Your task to perform on an android device: turn off notifications settings in the gmail app Image 0: 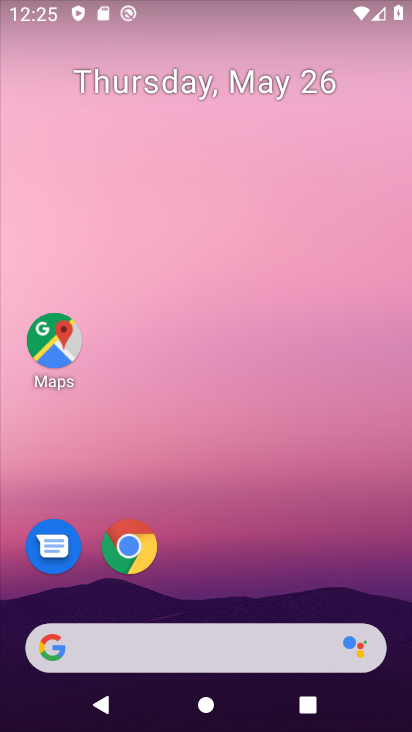
Step 0: drag from (391, 643) to (255, 33)
Your task to perform on an android device: turn off notifications settings in the gmail app Image 1: 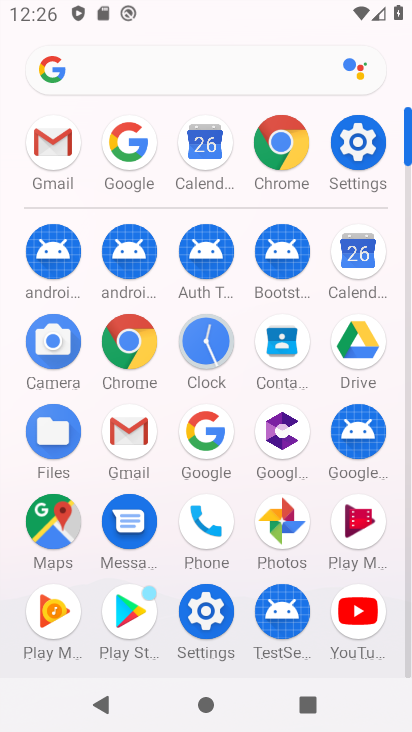
Step 1: click (130, 441)
Your task to perform on an android device: turn off notifications settings in the gmail app Image 2: 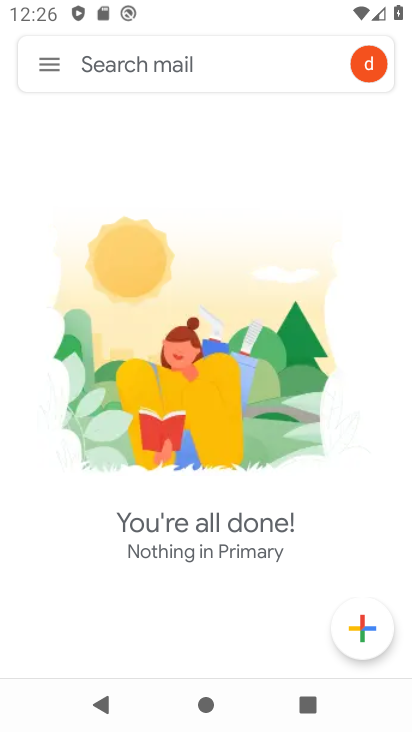
Step 2: click (52, 72)
Your task to perform on an android device: turn off notifications settings in the gmail app Image 3: 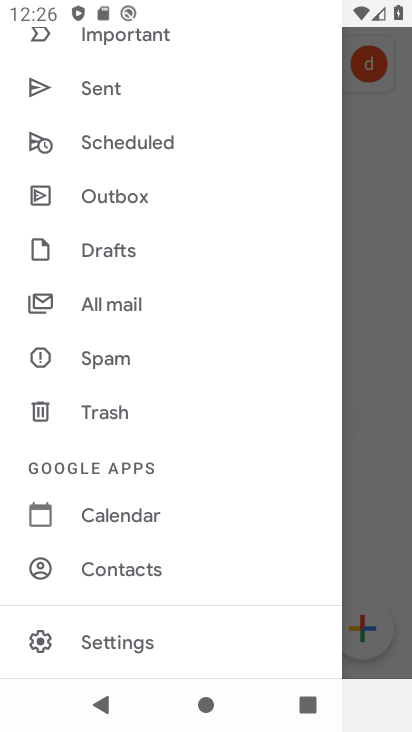
Step 3: click (114, 631)
Your task to perform on an android device: turn off notifications settings in the gmail app Image 4: 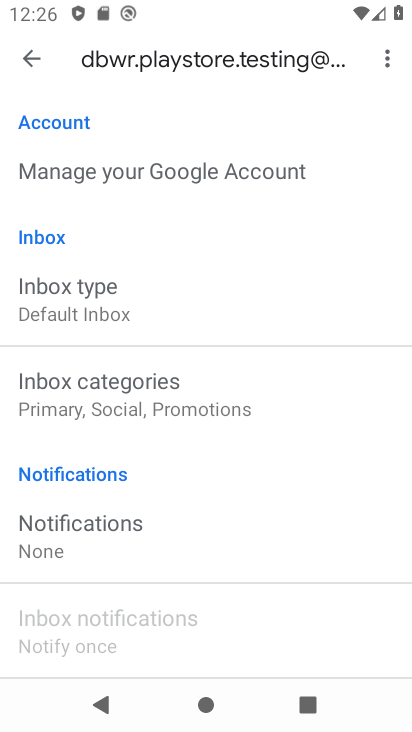
Step 4: click (102, 531)
Your task to perform on an android device: turn off notifications settings in the gmail app Image 5: 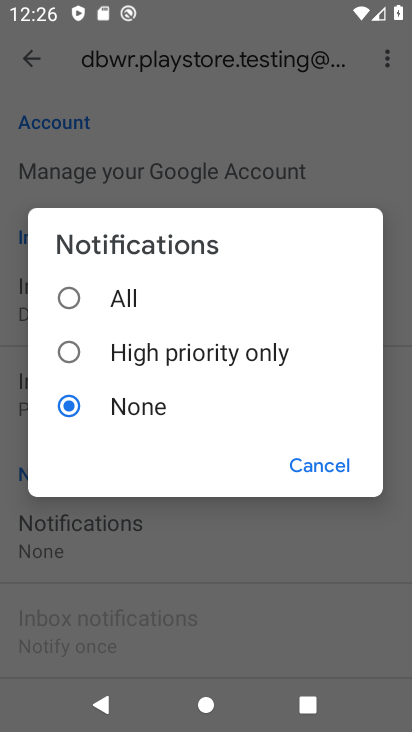
Step 5: task complete